Your task to perform on an android device: Open ESPN.com Image 0: 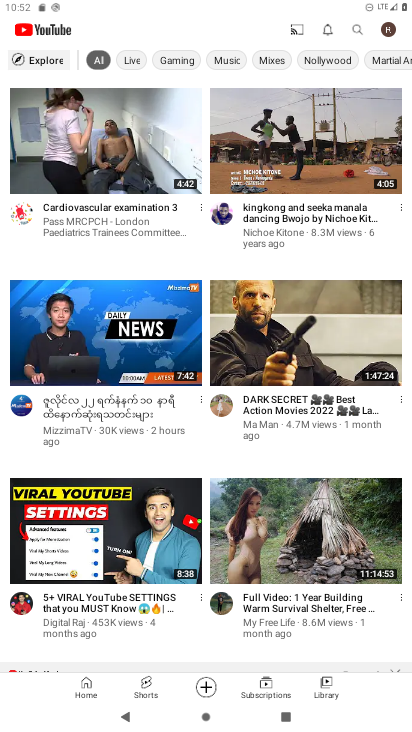
Step 0: press home button
Your task to perform on an android device: Open ESPN.com Image 1: 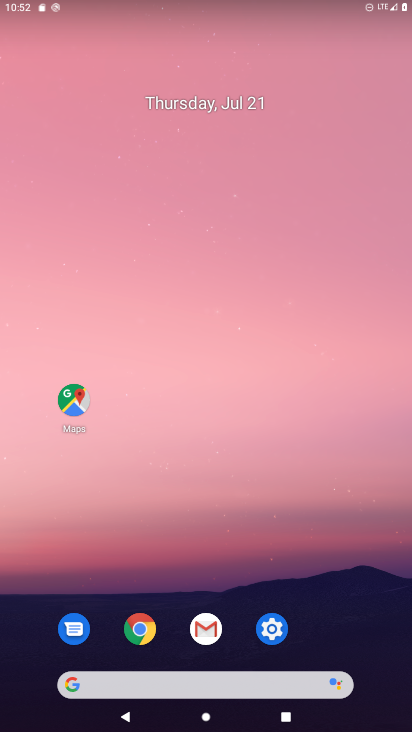
Step 1: click (147, 631)
Your task to perform on an android device: Open ESPN.com Image 2: 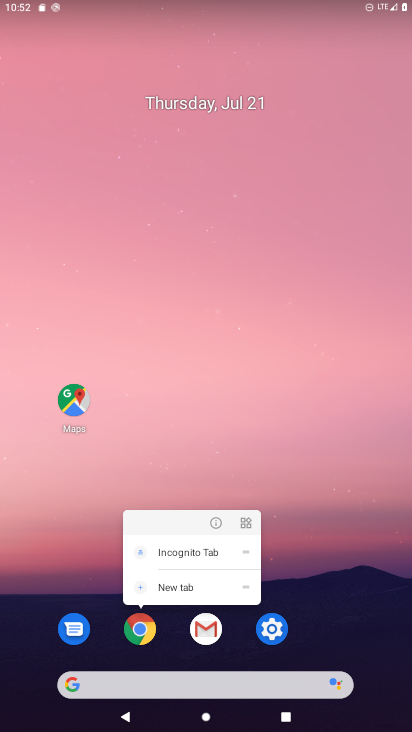
Step 2: click (130, 630)
Your task to perform on an android device: Open ESPN.com Image 3: 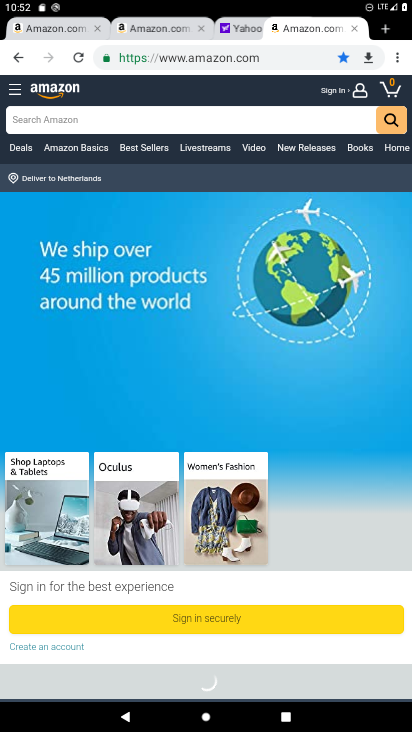
Step 3: click (384, 29)
Your task to perform on an android device: Open ESPN.com Image 4: 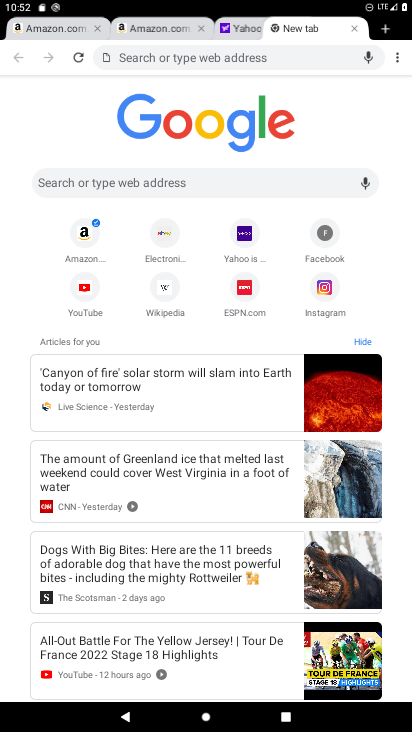
Step 4: click (255, 295)
Your task to perform on an android device: Open ESPN.com Image 5: 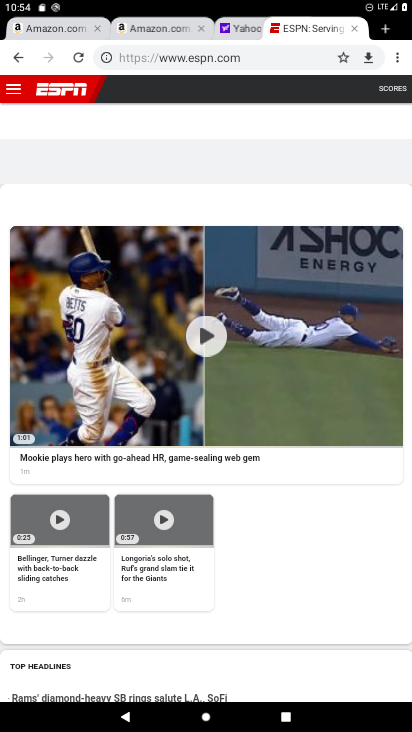
Step 5: task complete